Your task to perform on an android device: turn off priority inbox in the gmail app Image 0: 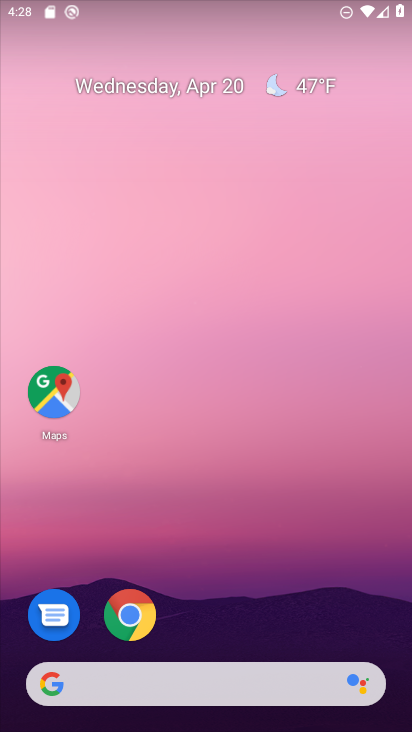
Step 0: drag from (236, 416) to (241, 47)
Your task to perform on an android device: turn off priority inbox in the gmail app Image 1: 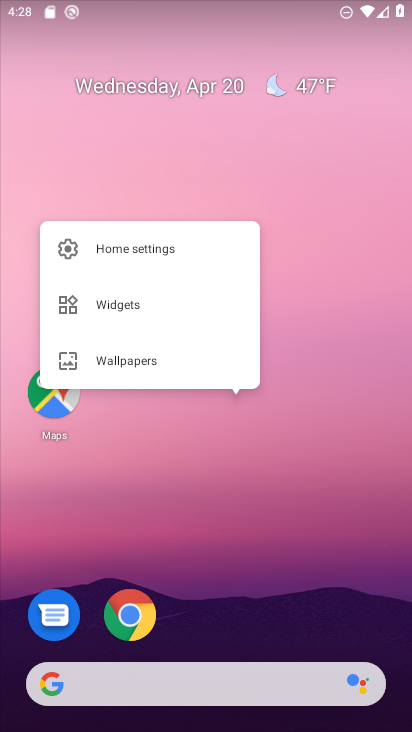
Step 1: click (294, 646)
Your task to perform on an android device: turn off priority inbox in the gmail app Image 2: 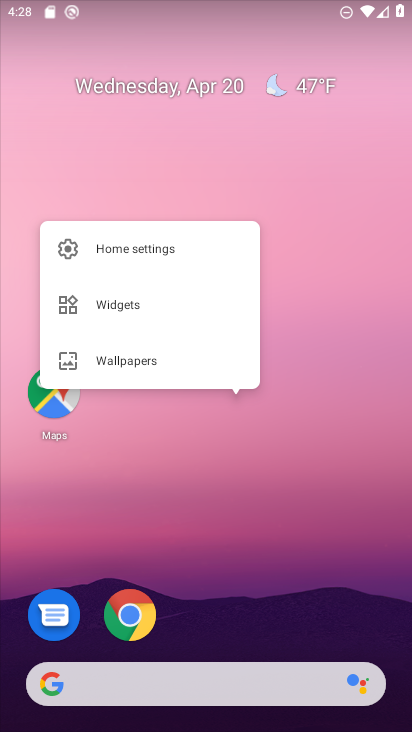
Step 2: drag from (296, 609) to (292, 12)
Your task to perform on an android device: turn off priority inbox in the gmail app Image 3: 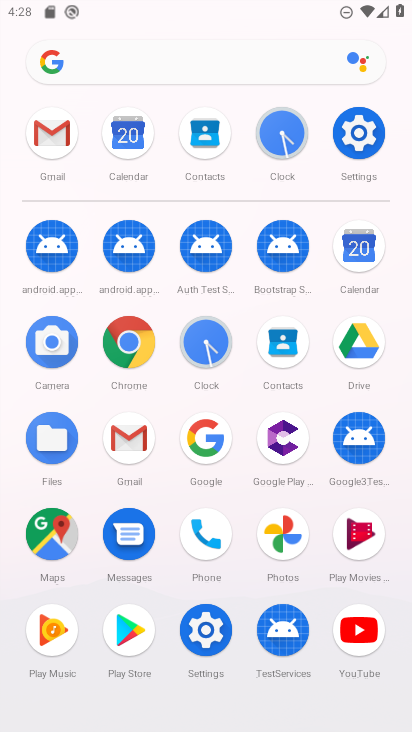
Step 3: click (129, 429)
Your task to perform on an android device: turn off priority inbox in the gmail app Image 4: 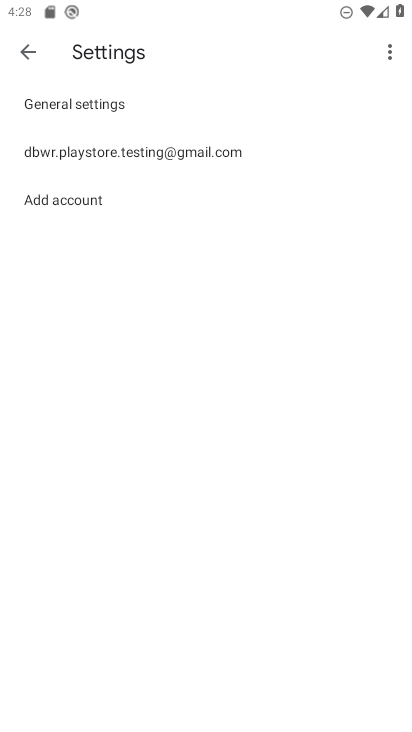
Step 4: click (65, 157)
Your task to perform on an android device: turn off priority inbox in the gmail app Image 5: 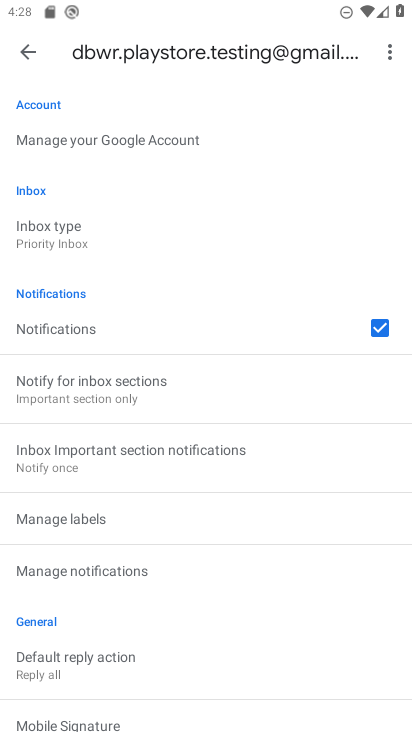
Step 5: click (71, 230)
Your task to perform on an android device: turn off priority inbox in the gmail app Image 6: 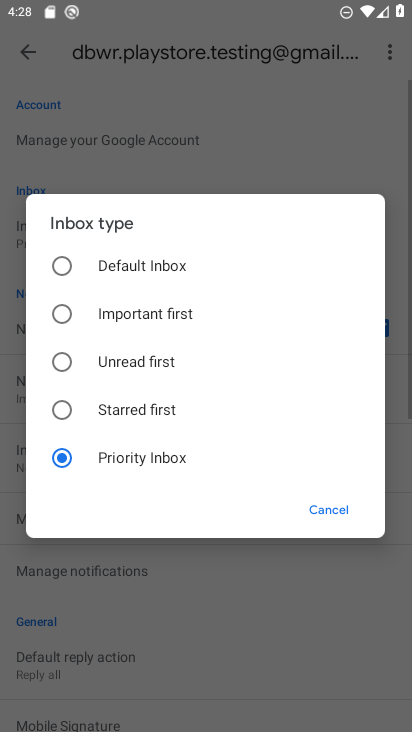
Step 6: click (117, 267)
Your task to perform on an android device: turn off priority inbox in the gmail app Image 7: 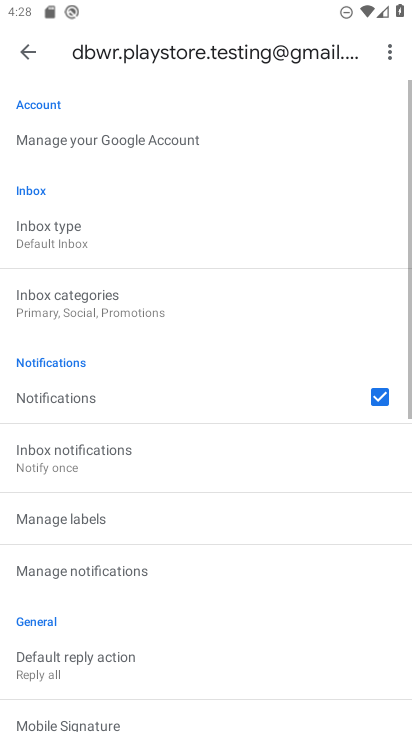
Step 7: task complete